Your task to perform on an android device: turn off wifi Image 0: 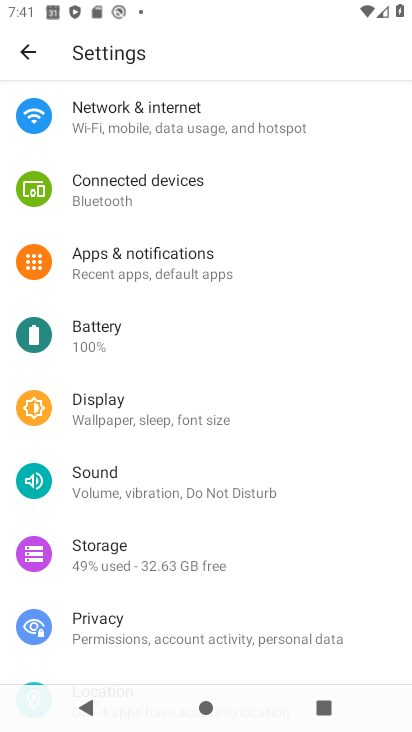
Step 0: drag from (354, 568) to (363, 199)
Your task to perform on an android device: turn off wifi Image 1: 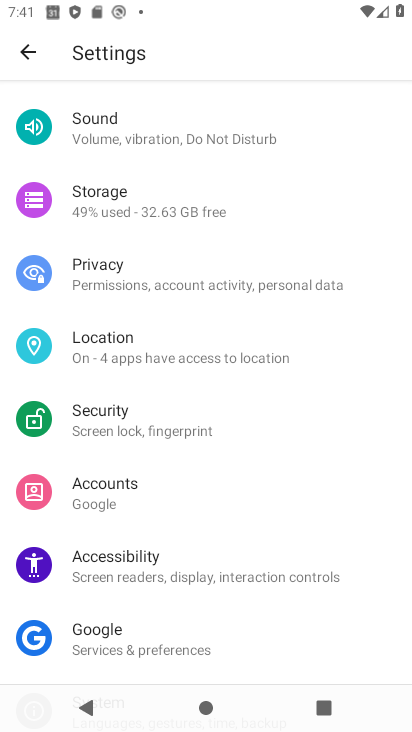
Step 1: drag from (361, 496) to (372, 242)
Your task to perform on an android device: turn off wifi Image 2: 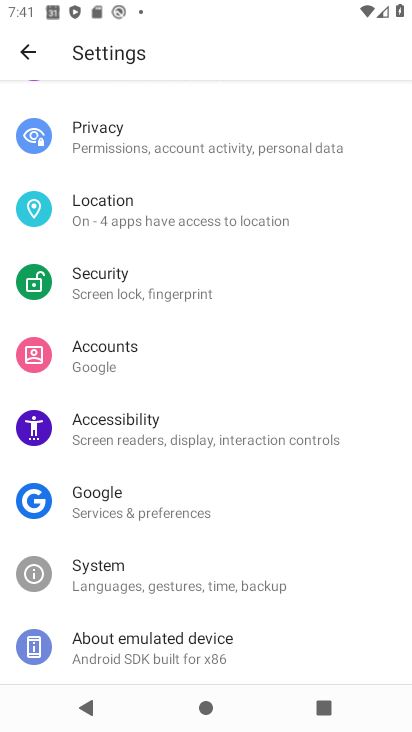
Step 2: drag from (344, 258) to (354, 361)
Your task to perform on an android device: turn off wifi Image 3: 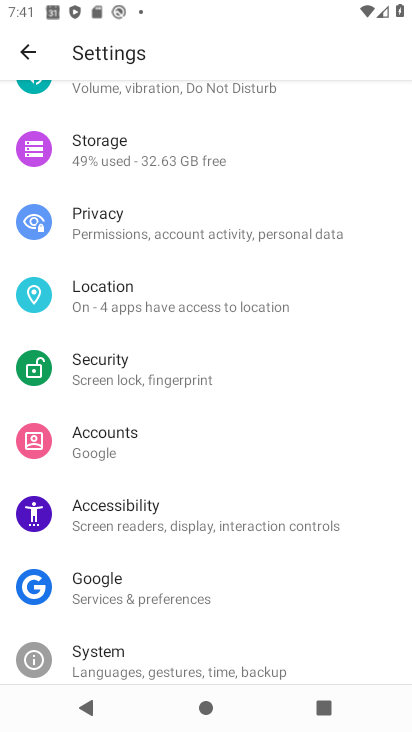
Step 3: drag from (302, 205) to (287, 306)
Your task to perform on an android device: turn off wifi Image 4: 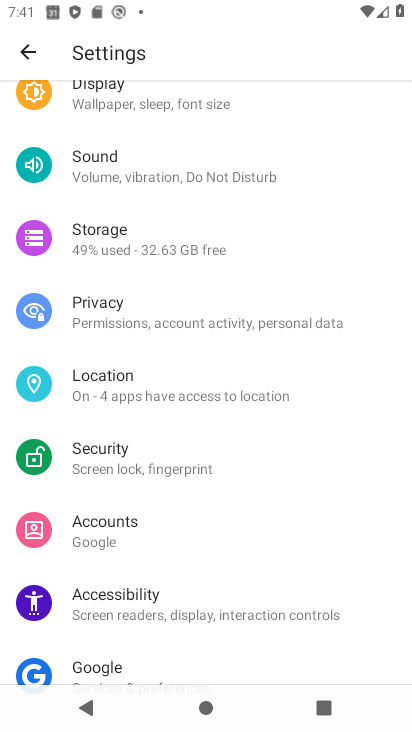
Step 4: drag from (332, 183) to (334, 306)
Your task to perform on an android device: turn off wifi Image 5: 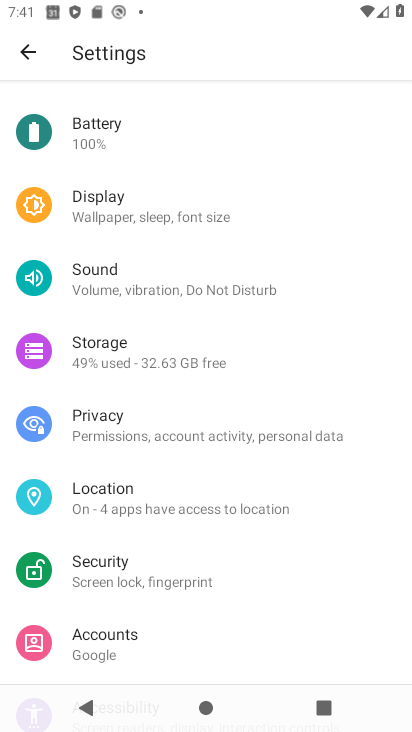
Step 5: drag from (337, 226) to (348, 385)
Your task to perform on an android device: turn off wifi Image 6: 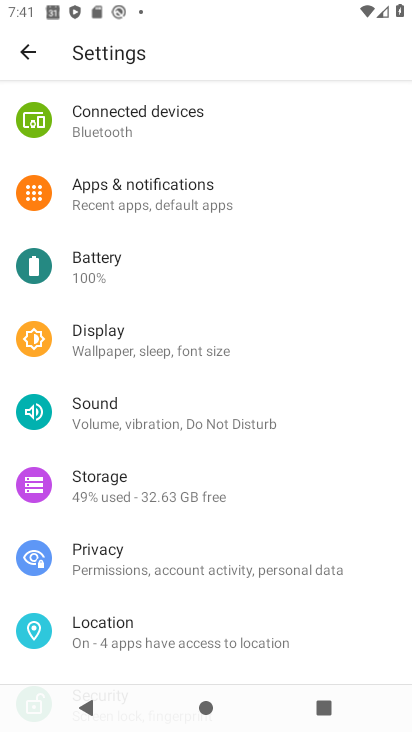
Step 6: drag from (323, 186) to (333, 316)
Your task to perform on an android device: turn off wifi Image 7: 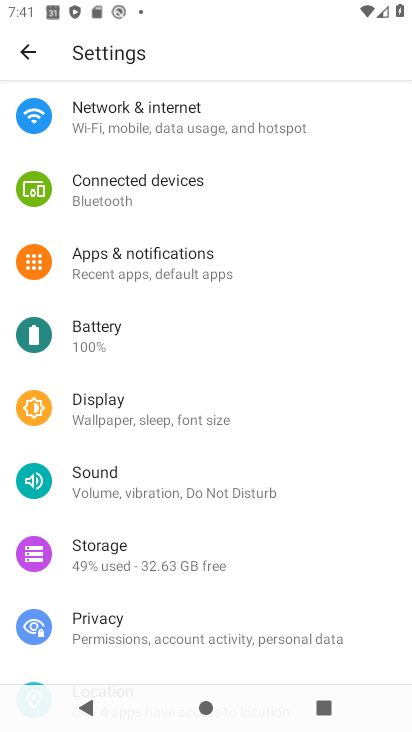
Step 7: drag from (340, 148) to (346, 325)
Your task to perform on an android device: turn off wifi Image 8: 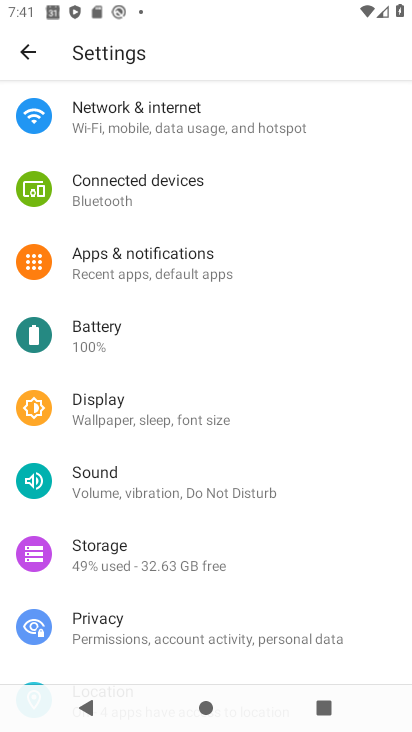
Step 8: click (216, 117)
Your task to perform on an android device: turn off wifi Image 9: 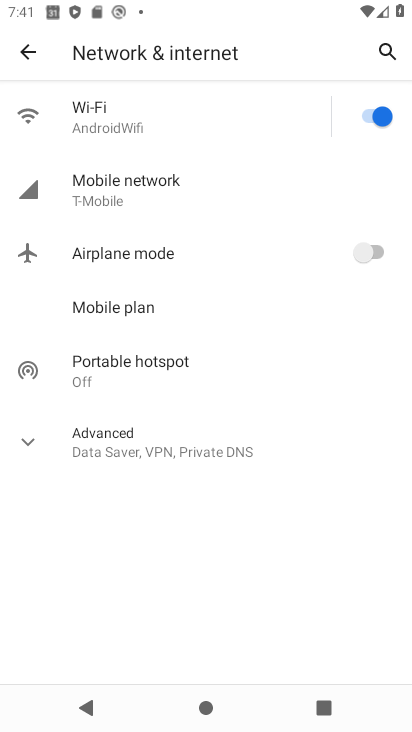
Step 9: click (380, 118)
Your task to perform on an android device: turn off wifi Image 10: 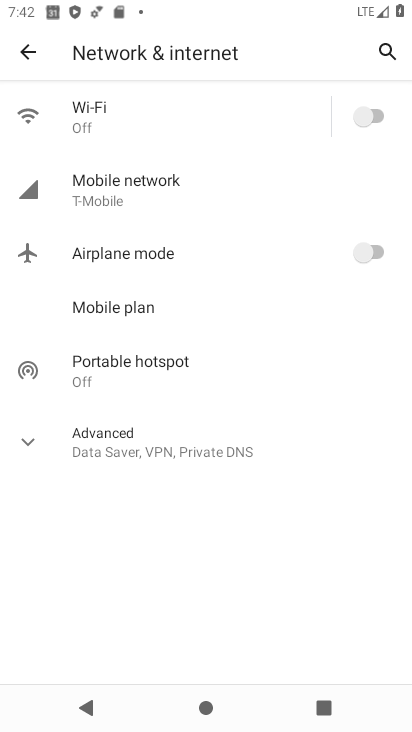
Step 10: task complete